Your task to perform on an android device: Turn off the flashlight Image 0: 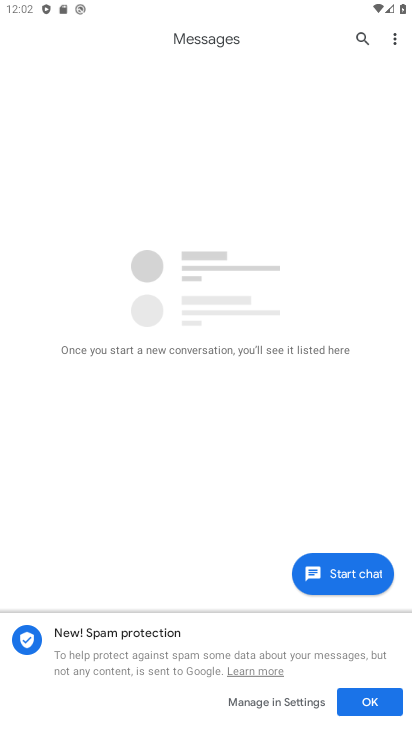
Step 0: drag from (215, 2) to (157, 501)
Your task to perform on an android device: Turn off the flashlight Image 1: 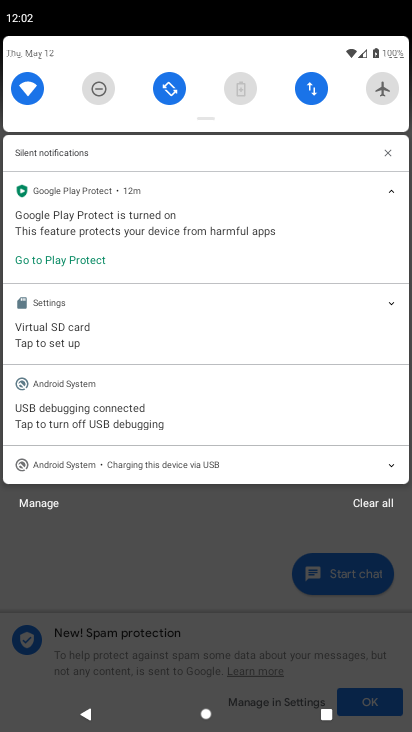
Step 1: task complete